Your task to perform on an android device: change the upload size in google photos Image 0: 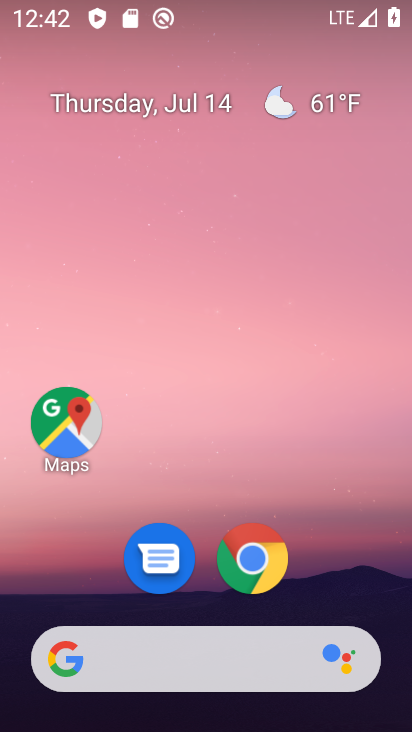
Step 0: drag from (96, 583) to (211, 52)
Your task to perform on an android device: change the upload size in google photos Image 1: 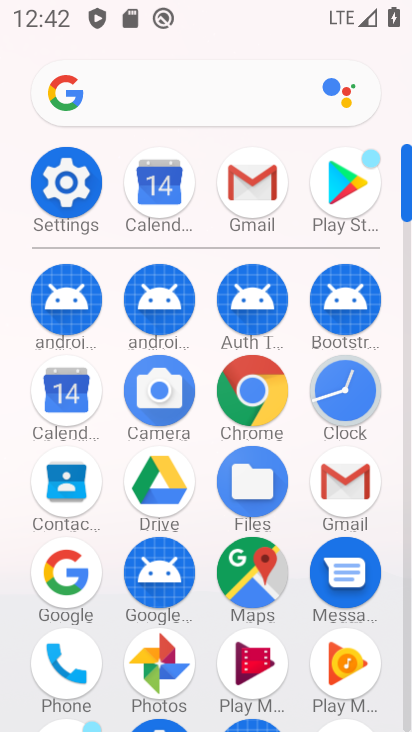
Step 1: click (150, 656)
Your task to perform on an android device: change the upload size in google photos Image 2: 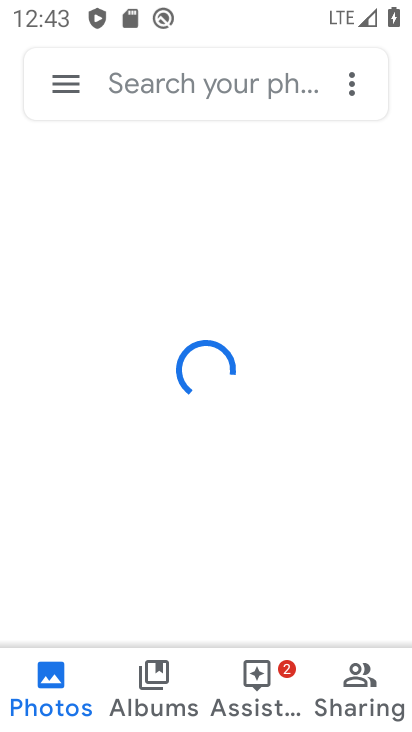
Step 2: click (61, 86)
Your task to perform on an android device: change the upload size in google photos Image 3: 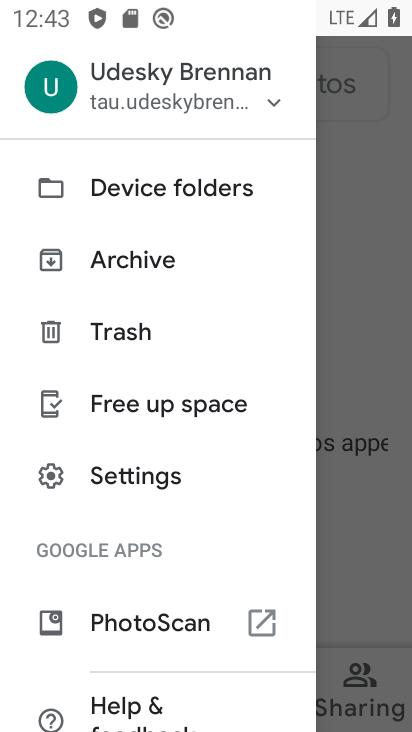
Step 3: click (131, 481)
Your task to perform on an android device: change the upload size in google photos Image 4: 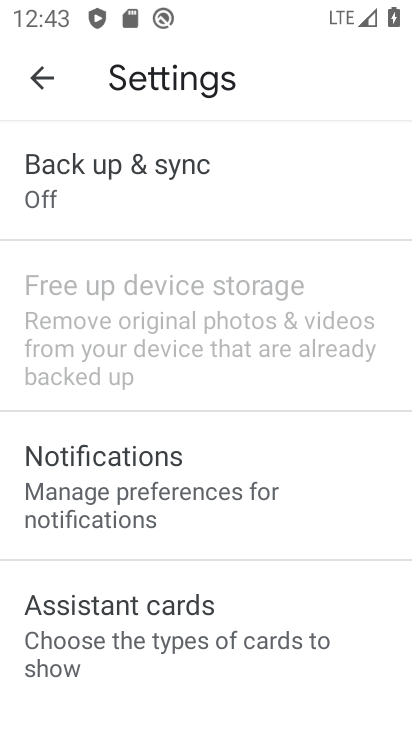
Step 4: click (169, 162)
Your task to perform on an android device: change the upload size in google photos Image 5: 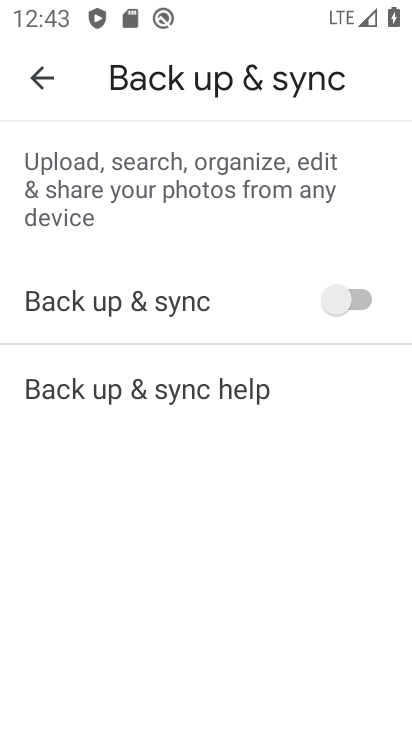
Step 5: task complete